Your task to perform on an android device: Do I have any events this weekend? Image 0: 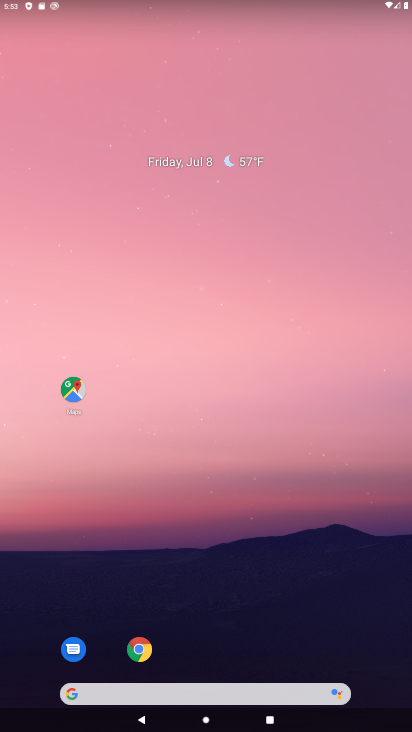
Step 0: drag from (307, 701) to (342, 32)
Your task to perform on an android device: Do I have any events this weekend? Image 1: 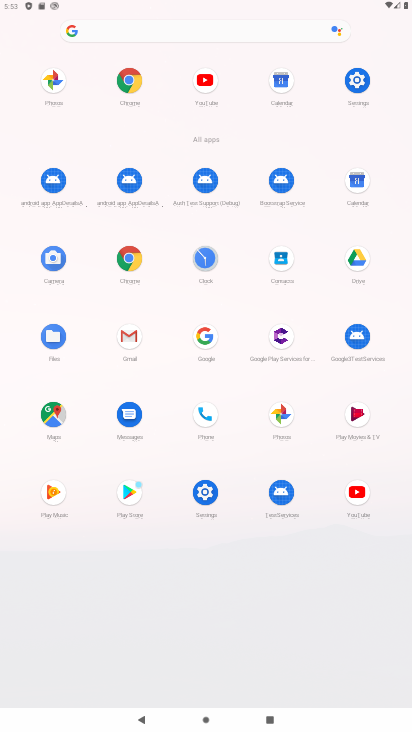
Step 1: click (348, 176)
Your task to perform on an android device: Do I have any events this weekend? Image 2: 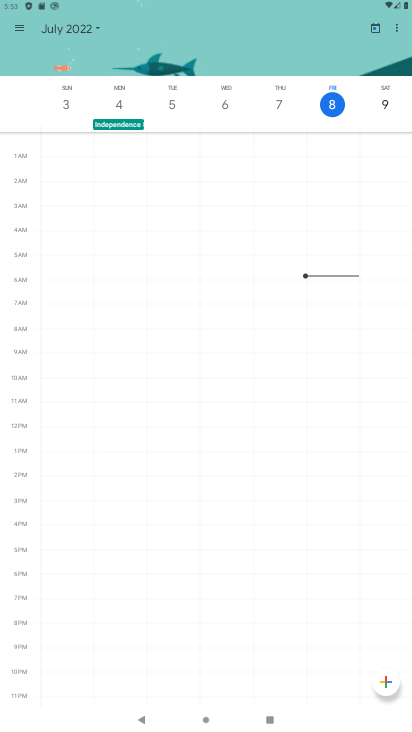
Step 2: click (94, 25)
Your task to perform on an android device: Do I have any events this weekend? Image 3: 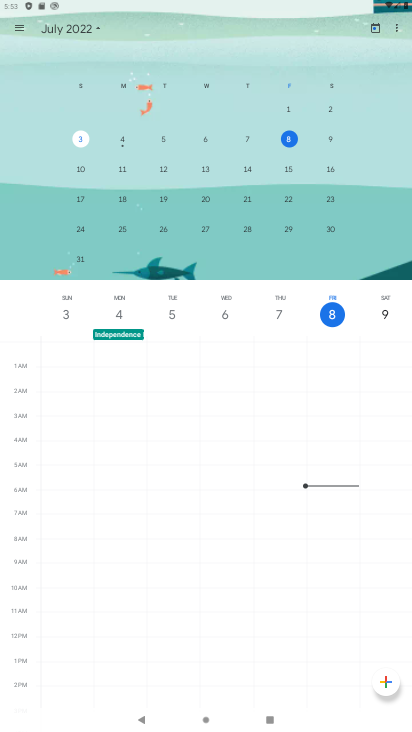
Step 3: click (329, 138)
Your task to perform on an android device: Do I have any events this weekend? Image 4: 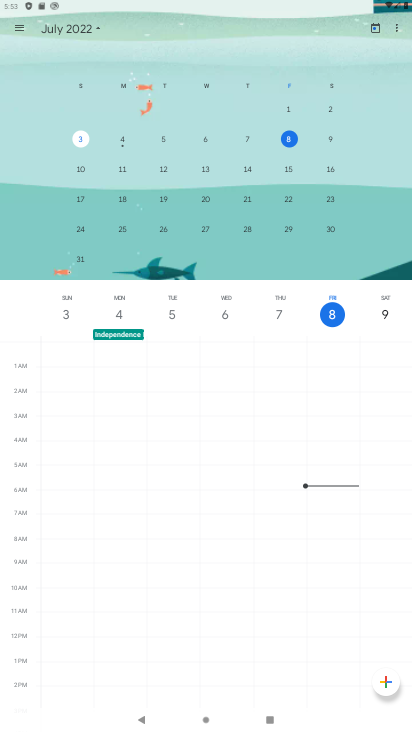
Step 4: click (335, 137)
Your task to perform on an android device: Do I have any events this weekend? Image 5: 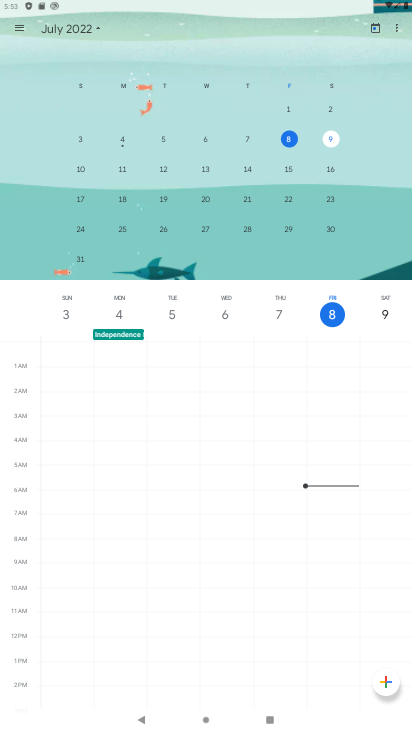
Step 5: task complete